Your task to perform on an android device: What's on my calendar today? Image 0: 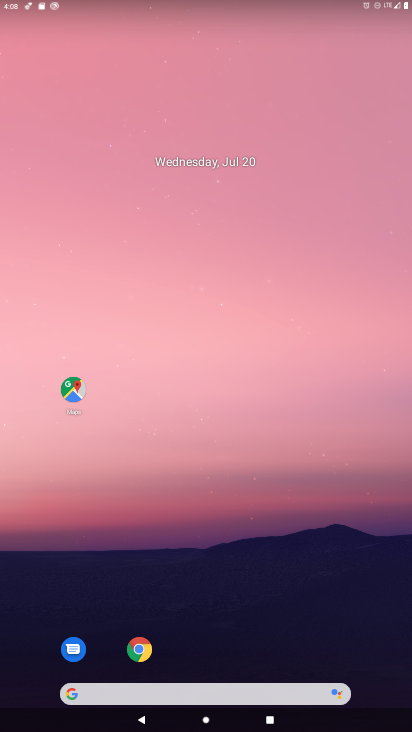
Step 0: drag from (204, 694) to (375, 84)
Your task to perform on an android device: What's on my calendar today? Image 1: 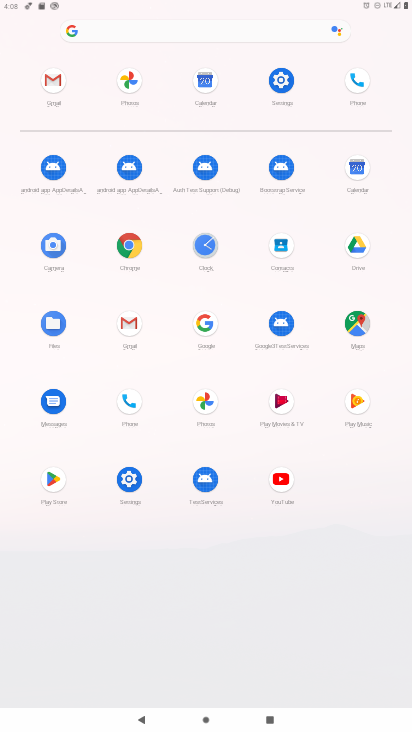
Step 1: click (357, 168)
Your task to perform on an android device: What's on my calendar today? Image 2: 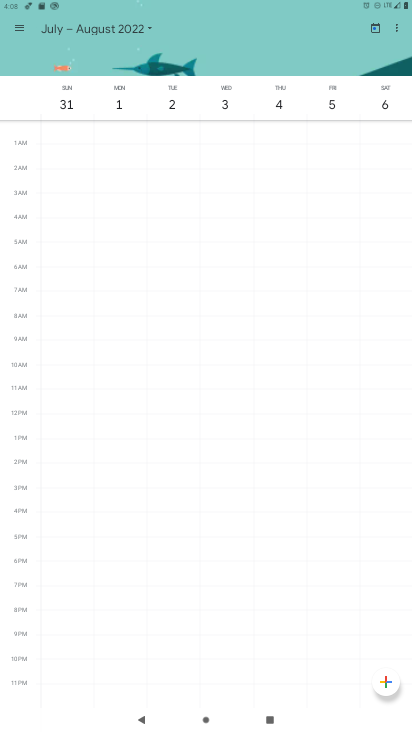
Step 2: click (377, 31)
Your task to perform on an android device: What's on my calendar today? Image 3: 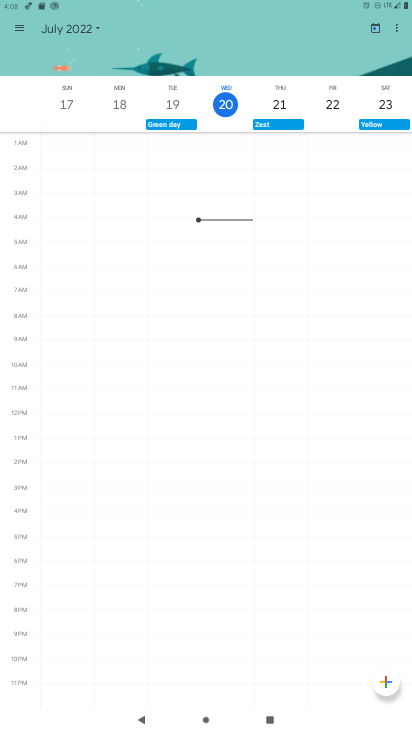
Step 3: click (101, 31)
Your task to perform on an android device: What's on my calendar today? Image 4: 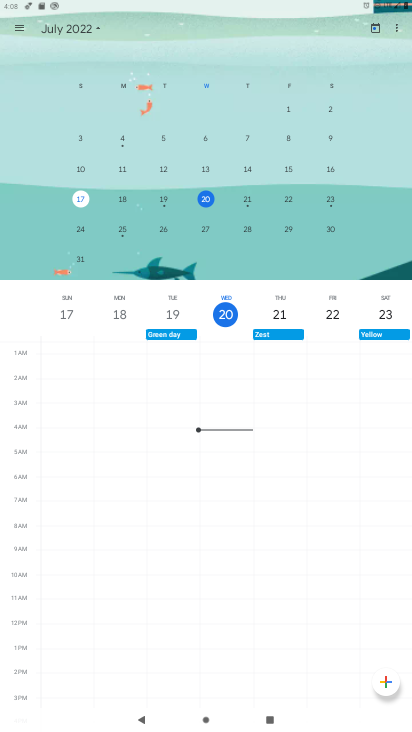
Step 4: click (208, 200)
Your task to perform on an android device: What's on my calendar today? Image 5: 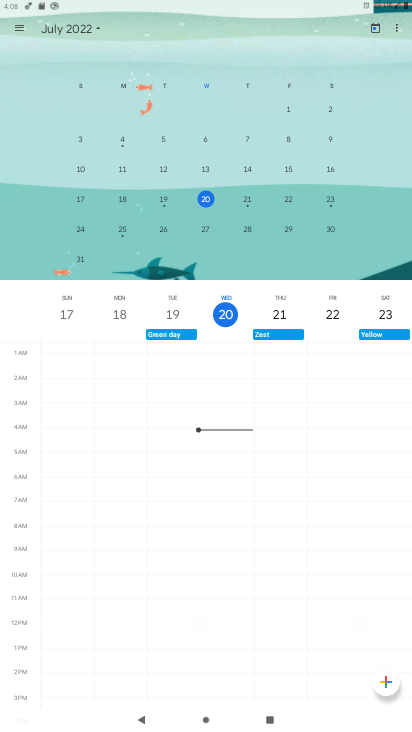
Step 5: click (19, 31)
Your task to perform on an android device: What's on my calendar today? Image 6: 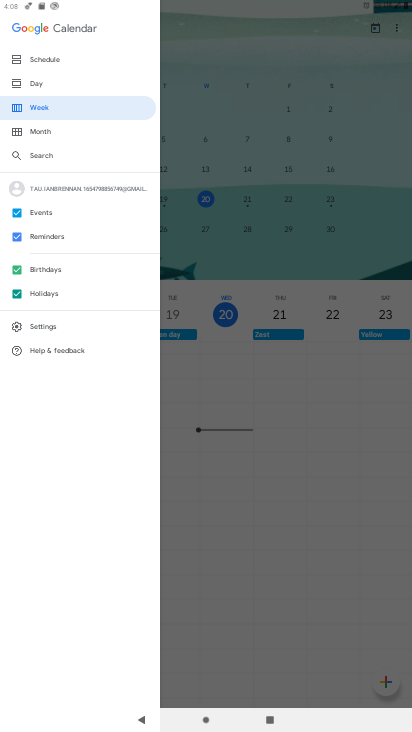
Step 6: click (47, 64)
Your task to perform on an android device: What's on my calendar today? Image 7: 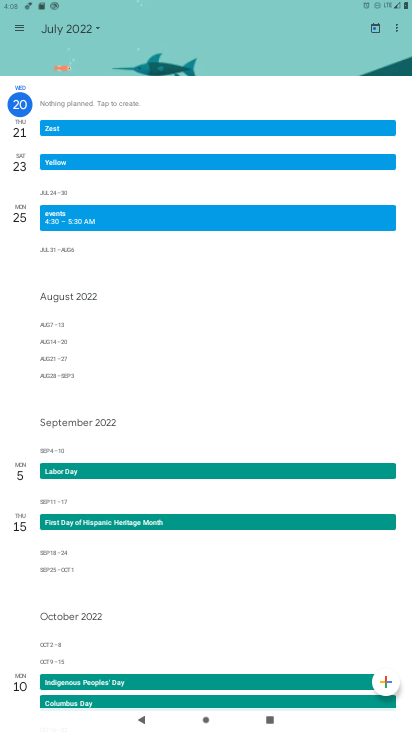
Step 7: task complete